Your task to perform on an android device: move an email to a new category in the gmail app Image 0: 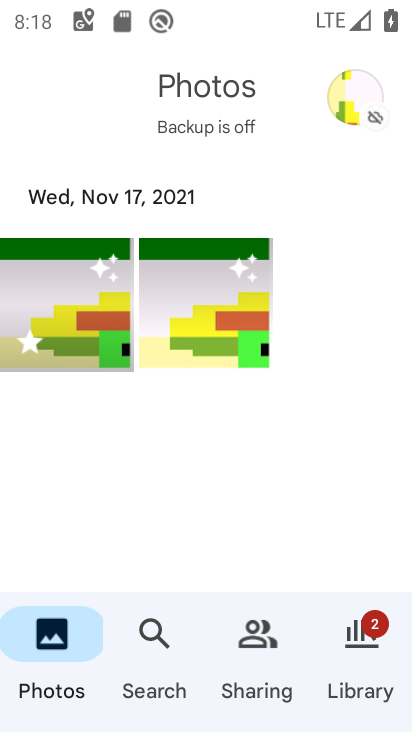
Step 0: drag from (236, 461) to (289, 173)
Your task to perform on an android device: move an email to a new category in the gmail app Image 1: 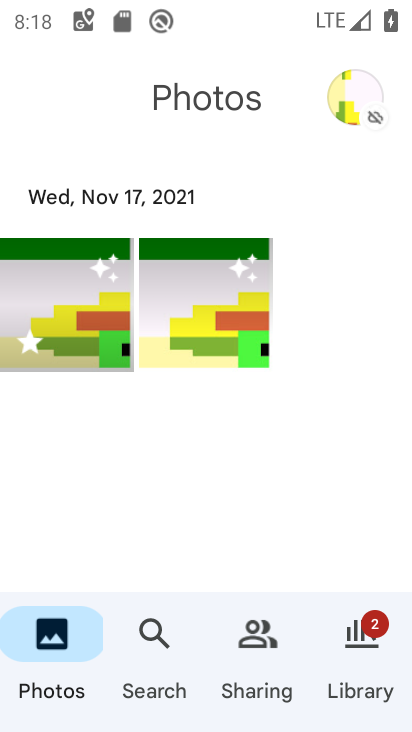
Step 1: drag from (172, 461) to (207, 285)
Your task to perform on an android device: move an email to a new category in the gmail app Image 2: 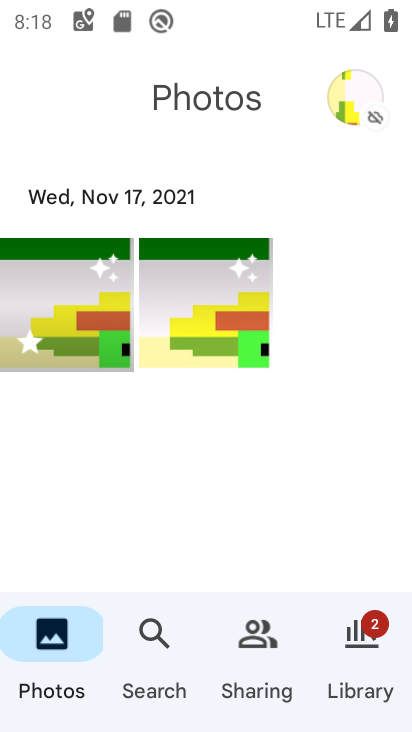
Step 2: drag from (149, 356) to (149, 260)
Your task to perform on an android device: move an email to a new category in the gmail app Image 3: 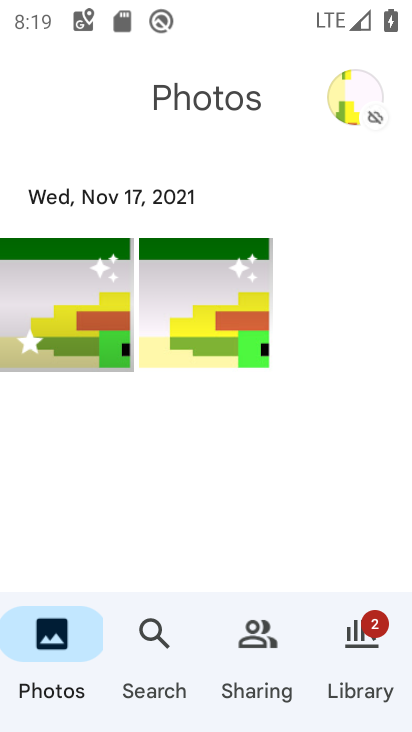
Step 3: press home button
Your task to perform on an android device: move an email to a new category in the gmail app Image 4: 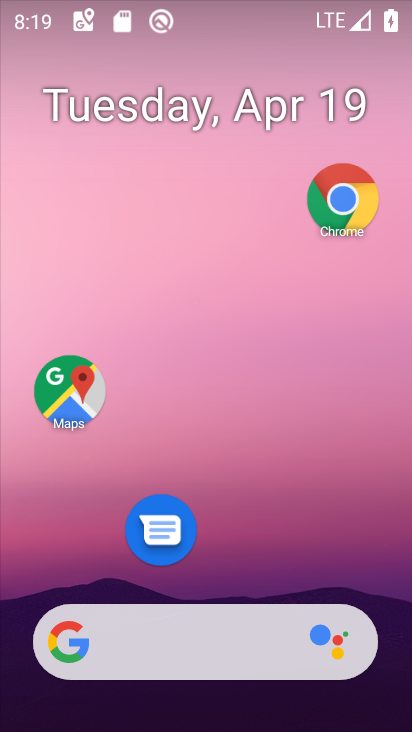
Step 4: drag from (208, 561) to (253, 85)
Your task to perform on an android device: move an email to a new category in the gmail app Image 5: 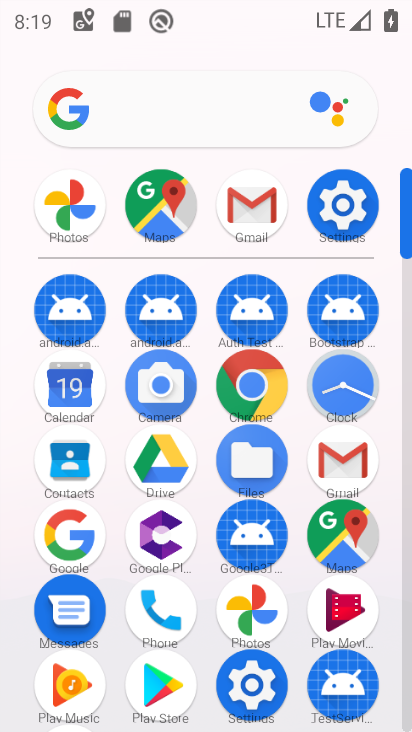
Step 5: click (330, 439)
Your task to perform on an android device: move an email to a new category in the gmail app Image 6: 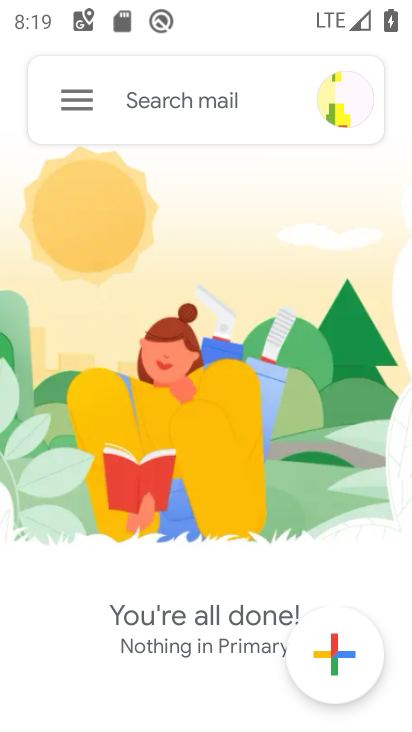
Step 6: click (63, 99)
Your task to perform on an android device: move an email to a new category in the gmail app Image 7: 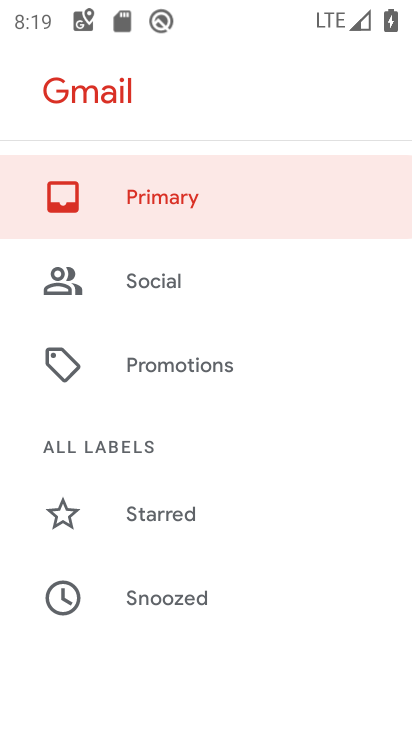
Step 7: task complete